Your task to perform on an android device: Do I have any events today? Image 0: 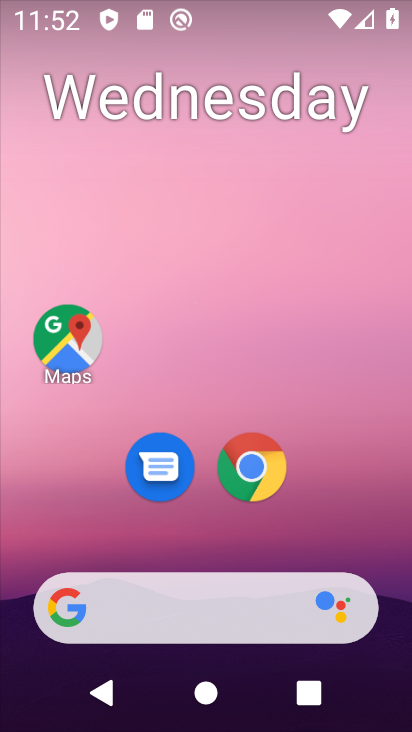
Step 0: drag from (364, 524) to (264, 3)
Your task to perform on an android device: Do I have any events today? Image 1: 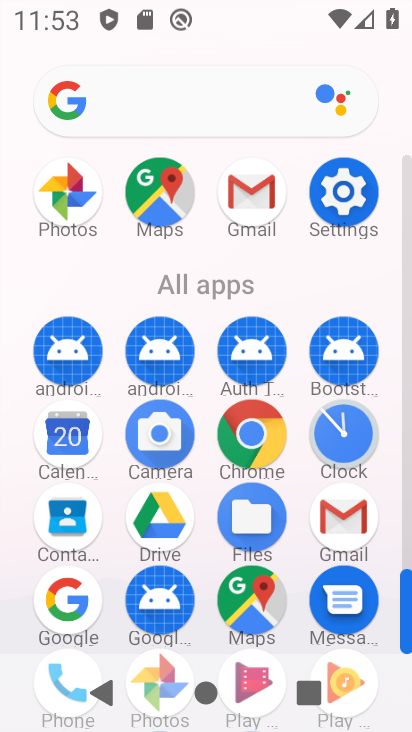
Step 1: click (81, 452)
Your task to perform on an android device: Do I have any events today? Image 2: 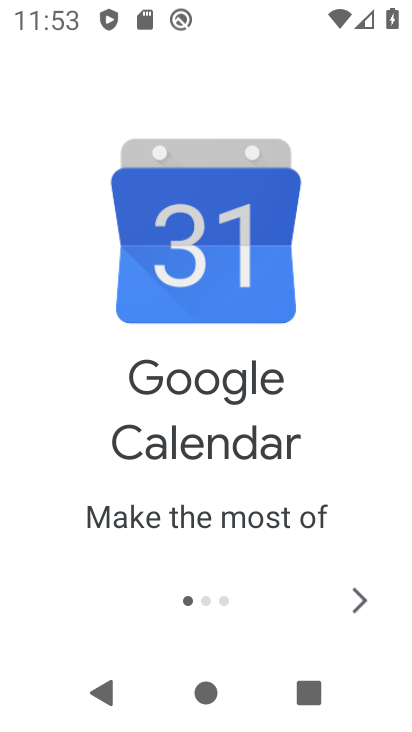
Step 2: click (353, 594)
Your task to perform on an android device: Do I have any events today? Image 3: 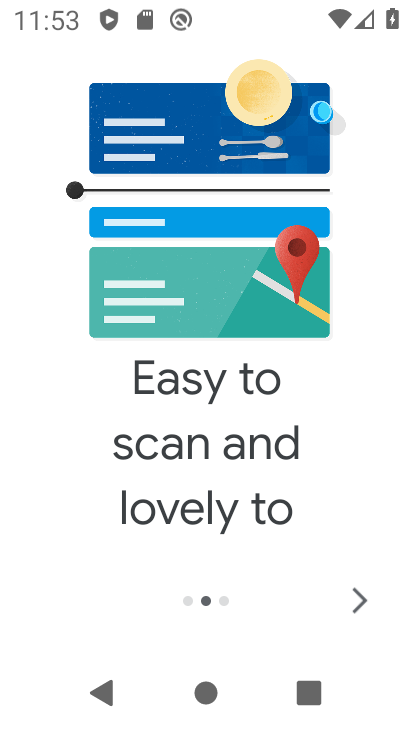
Step 3: click (353, 594)
Your task to perform on an android device: Do I have any events today? Image 4: 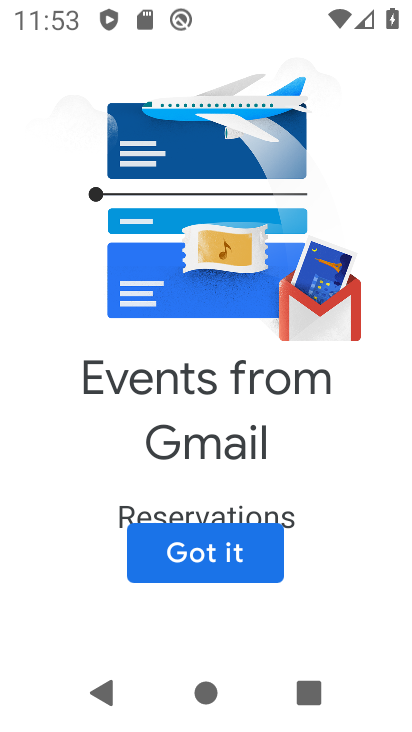
Step 4: click (222, 568)
Your task to perform on an android device: Do I have any events today? Image 5: 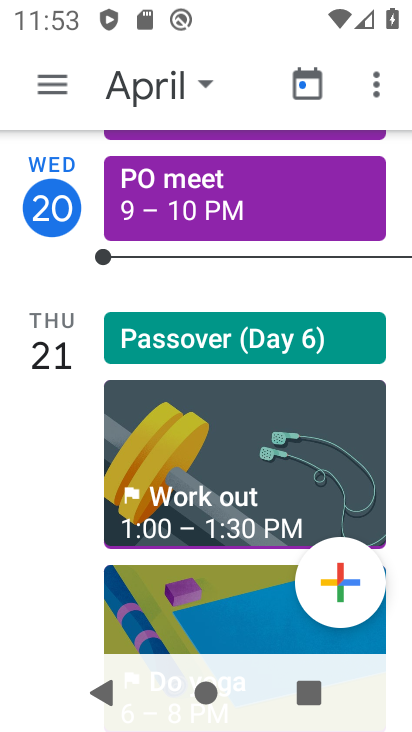
Step 5: click (49, 83)
Your task to perform on an android device: Do I have any events today? Image 6: 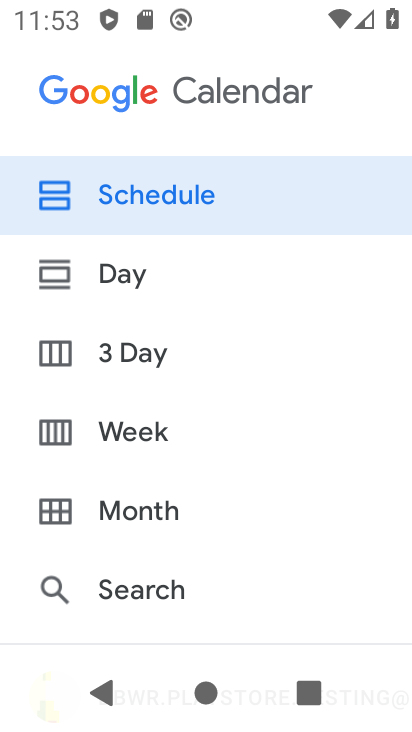
Step 6: click (104, 287)
Your task to perform on an android device: Do I have any events today? Image 7: 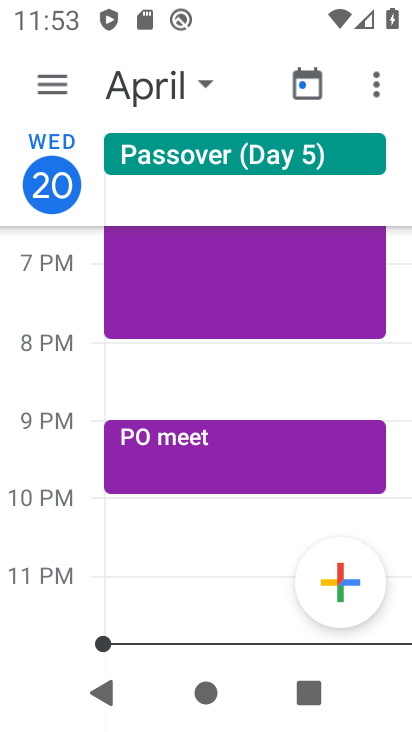
Step 7: task complete